Your task to perform on an android device: see tabs open on other devices in the chrome app Image 0: 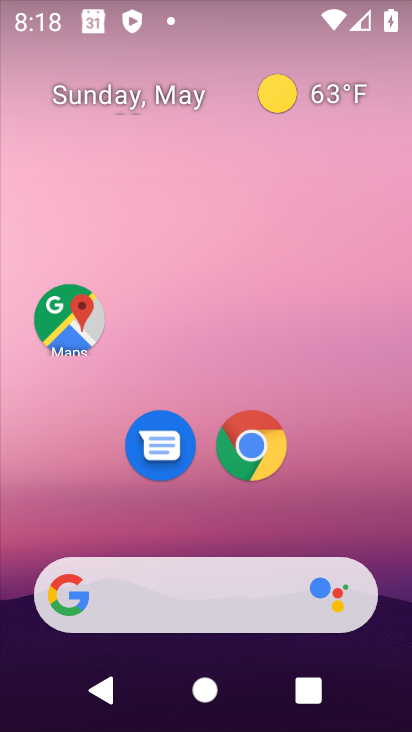
Step 0: drag from (382, 537) to (382, 284)
Your task to perform on an android device: see tabs open on other devices in the chrome app Image 1: 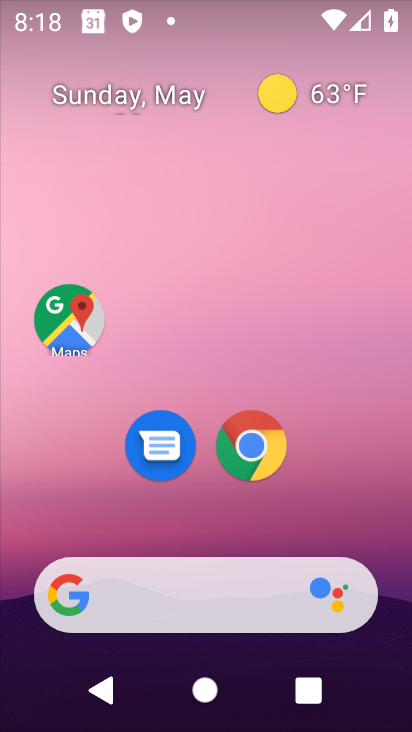
Step 1: drag from (393, 538) to (380, 137)
Your task to perform on an android device: see tabs open on other devices in the chrome app Image 2: 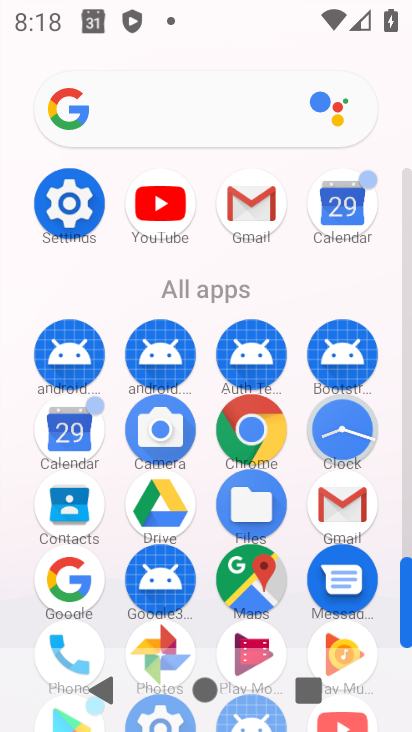
Step 2: click (254, 440)
Your task to perform on an android device: see tabs open on other devices in the chrome app Image 3: 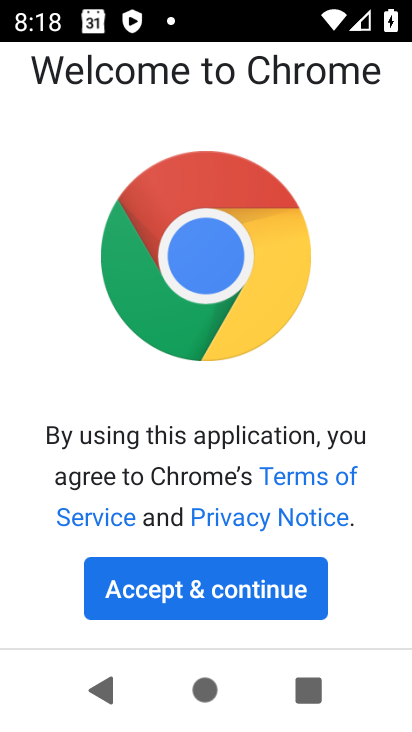
Step 3: click (195, 591)
Your task to perform on an android device: see tabs open on other devices in the chrome app Image 4: 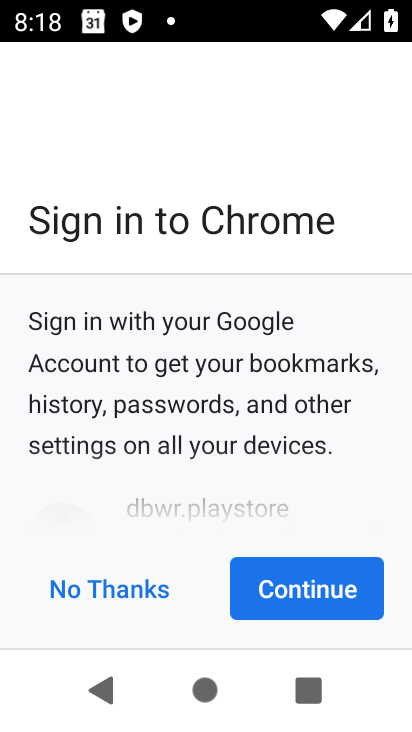
Step 4: click (253, 601)
Your task to perform on an android device: see tabs open on other devices in the chrome app Image 5: 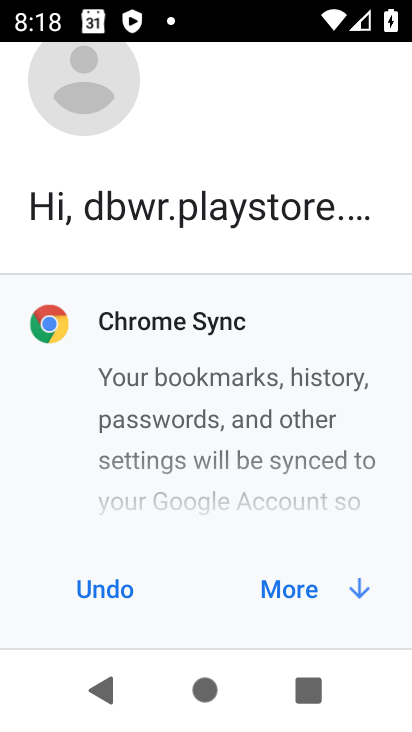
Step 5: click (288, 593)
Your task to perform on an android device: see tabs open on other devices in the chrome app Image 6: 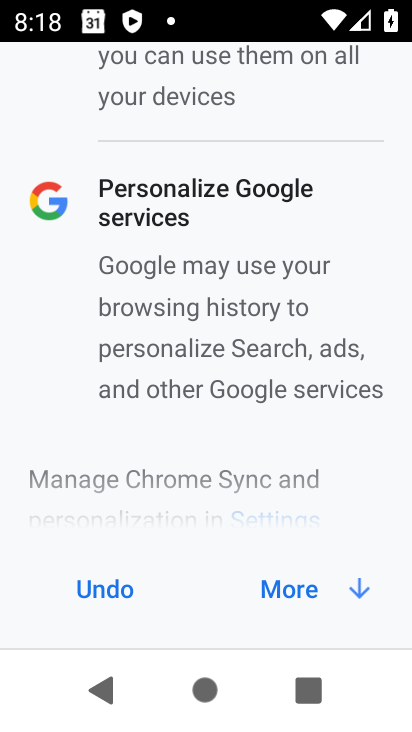
Step 6: click (288, 593)
Your task to perform on an android device: see tabs open on other devices in the chrome app Image 7: 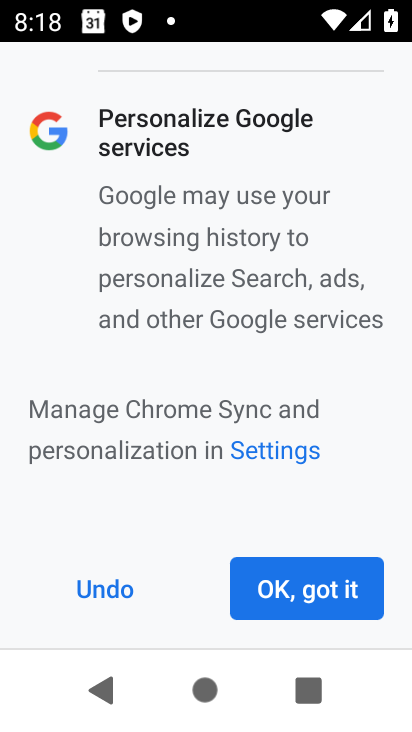
Step 7: click (288, 593)
Your task to perform on an android device: see tabs open on other devices in the chrome app Image 8: 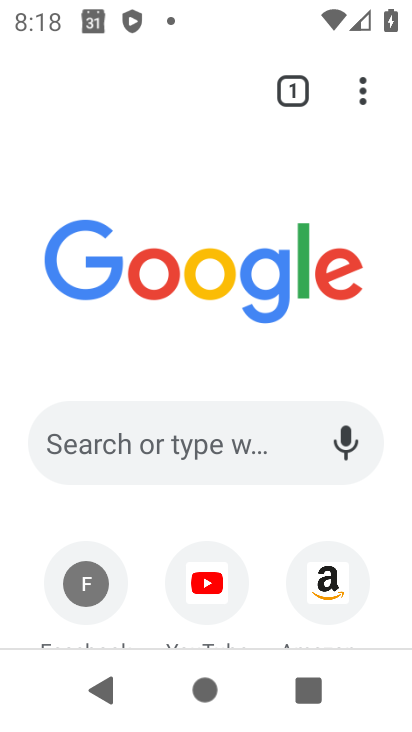
Step 8: click (367, 101)
Your task to perform on an android device: see tabs open on other devices in the chrome app Image 9: 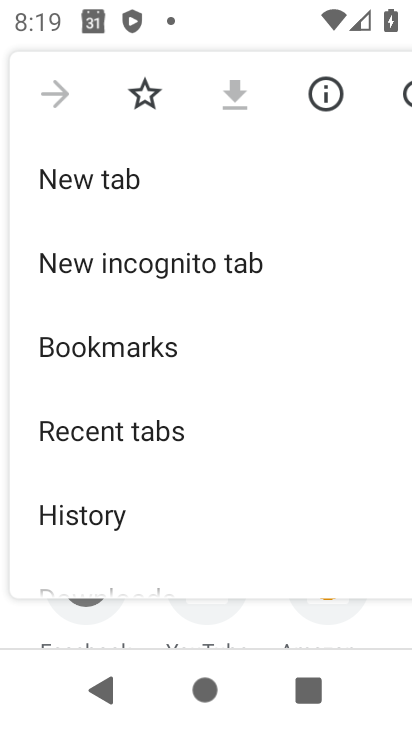
Step 9: click (151, 436)
Your task to perform on an android device: see tabs open on other devices in the chrome app Image 10: 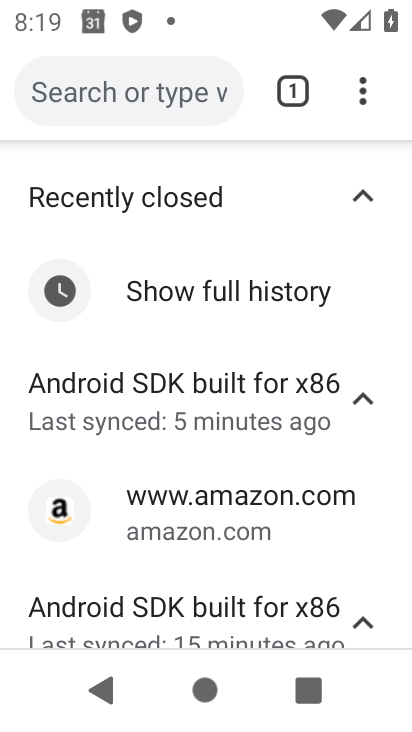
Step 10: click (298, 92)
Your task to perform on an android device: see tabs open on other devices in the chrome app Image 11: 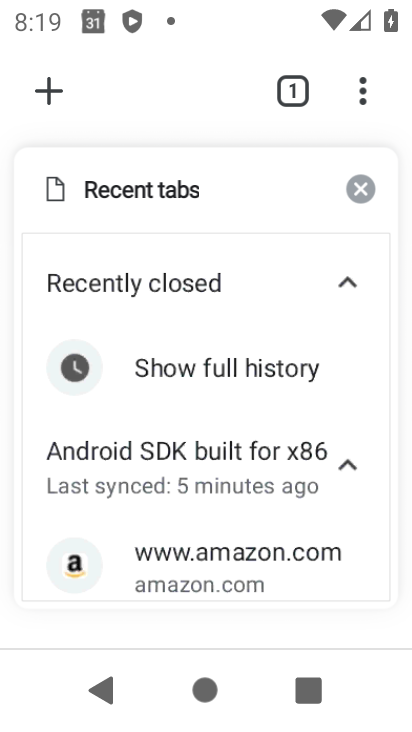
Step 11: task complete